Your task to perform on an android device: What time is it? Image 0: 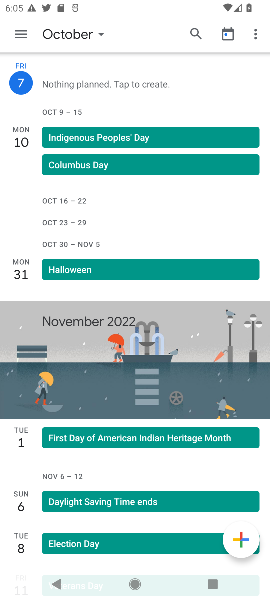
Step 0: press home button
Your task to perform on an android device: What time is it? Image 1: 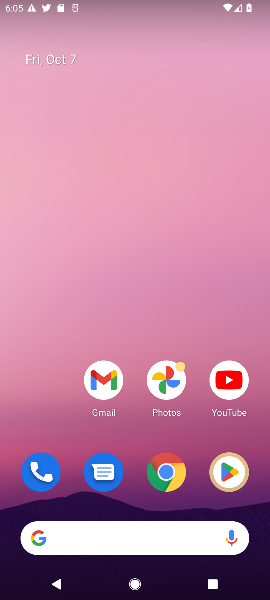
Step 1: click (169, 477)
Your task to perform on an android device: What time is it? Image 2: 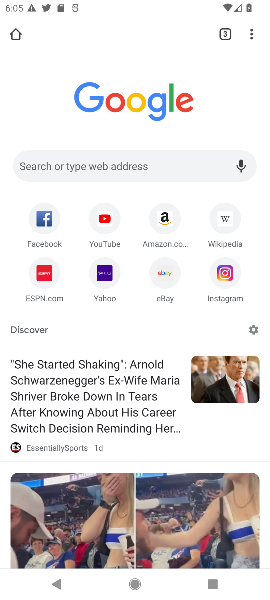
Step 2: click (86, 160)
Your task to perform on an android device: What time is it? Image 3: 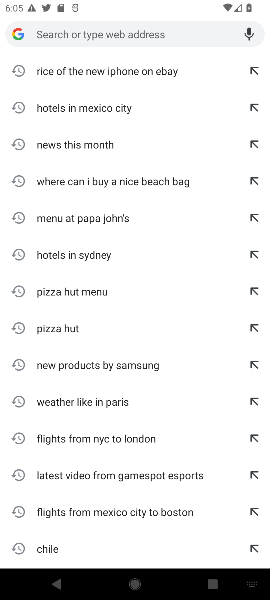
Step 3: type "What time is it"
Your task to perform on an android device: What time is it? Image 4: 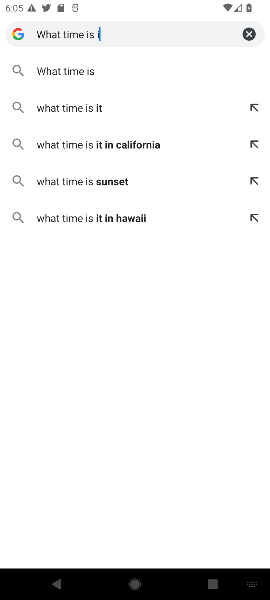
Step 4: type ""
Your task to perform on an android device: What time is it? Image 5: 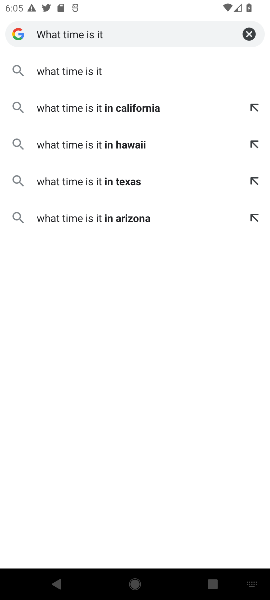
Step 5: press enter
Your task to perform on an android device: What time is it? Image 6: 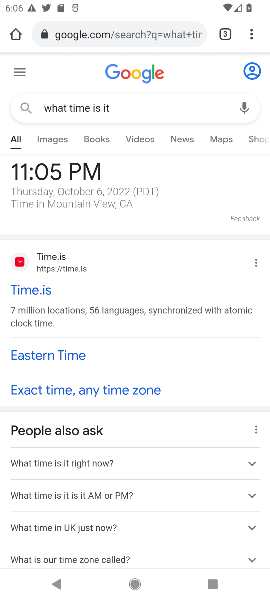
Step 6: task complete